Your task to perform on an android device: allow notifications from all sites in the chrome app Image 0: 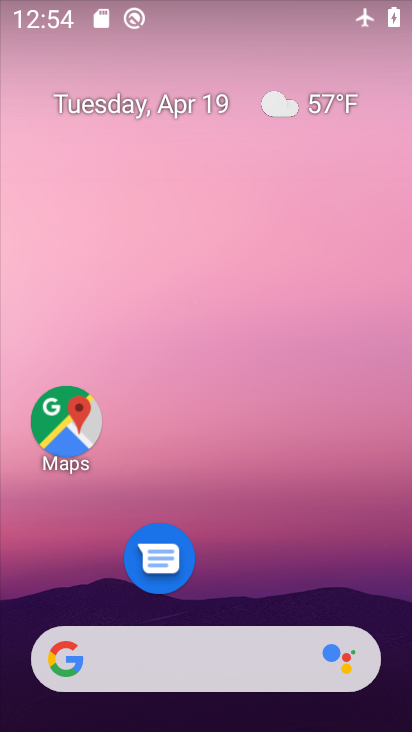
Step 0: drag from (265, 584) to (183, 121)
Your task to perform on an android device: allow notifications from all sites in the chrome app Image 1: 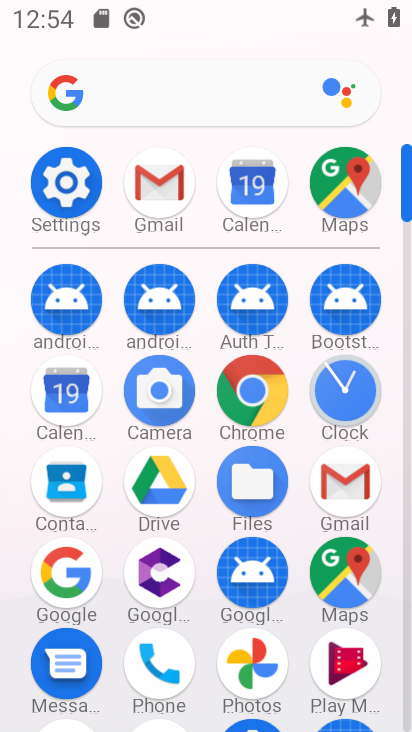
Step 1: click (245, 394)
Your task to perform on an android device: allow notifications from all sites in the chrome app Image 2: 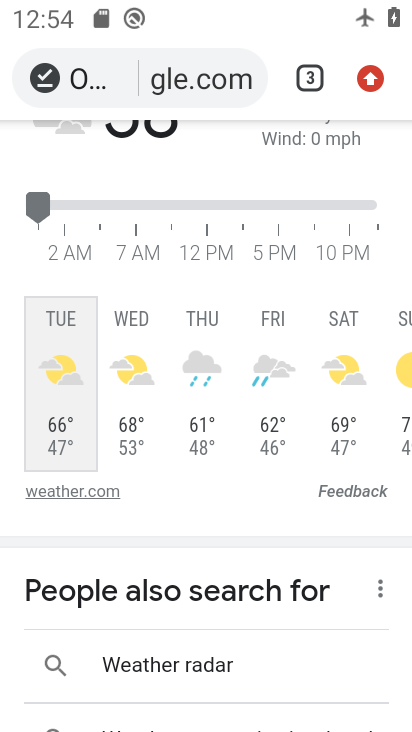
Step 2: click (367, 78)
Your task to perform on an android device: allow notifications from all sites in the chrome app Image 3: 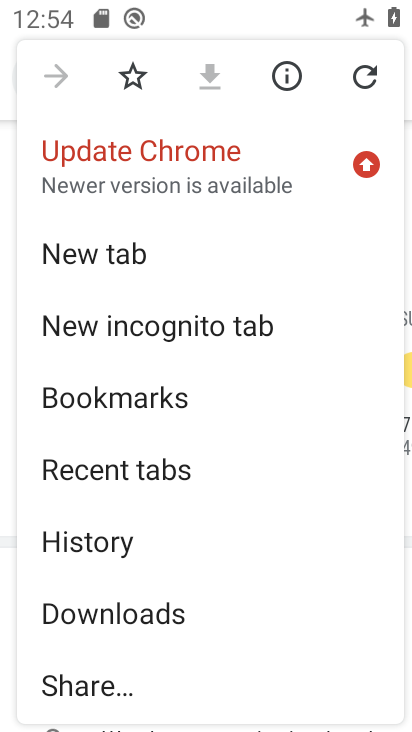
Step 3: drag from (124, 678) to (155, 349)
Your task to perform on an android device: allow notifications from all sites in the chrome app Image 4: 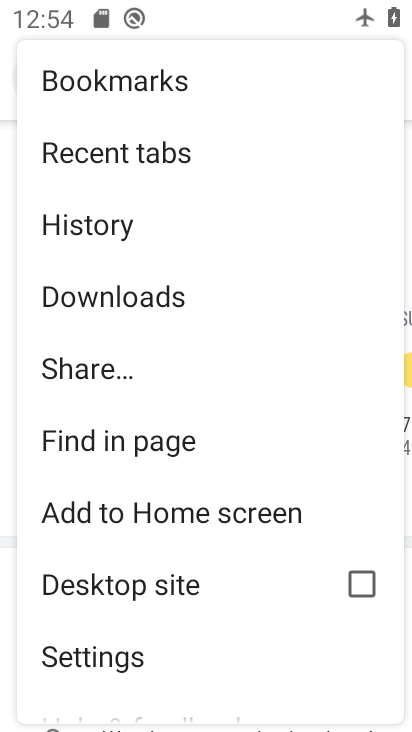
Step 4: drag from (224, 644) to (143, 221)
Your task to perform on an android device: allow notifications from all sites in the chrome app Image 5: 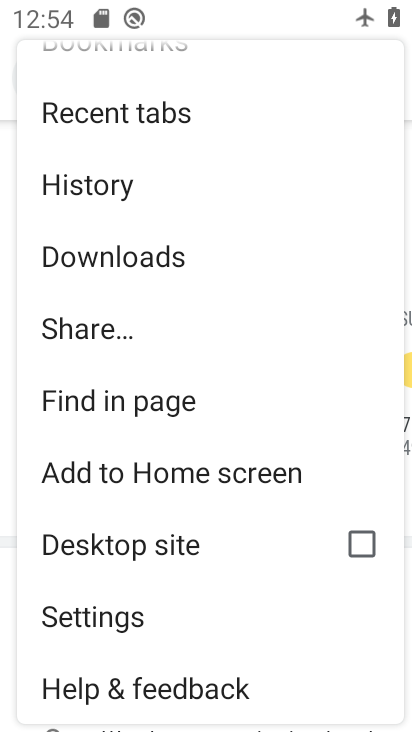
Step 5: click (76, 618)
Your task to perform on an android device: allow notifications from all sites in the chrome app Image 6: 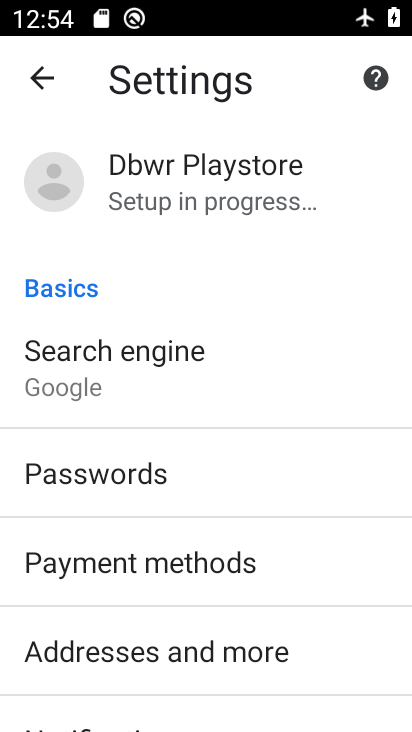
Step 6: drag from (231, 590) to (189, 237)
Your task to perform on an android device: allow notifications from all sites in the chrome app Image 7: 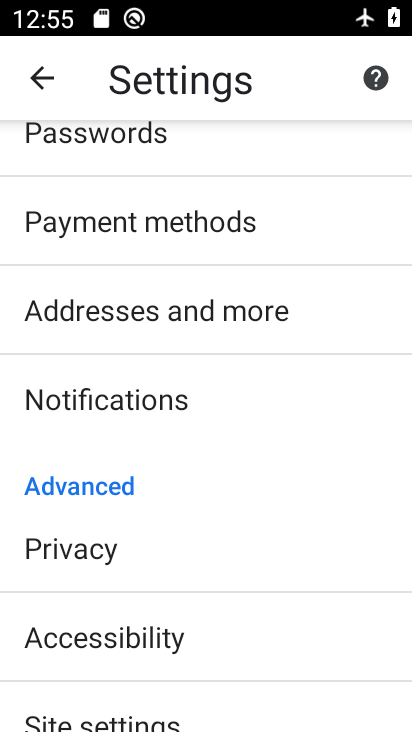
Step 7: click (167, 401)
Your task to perform on an android device: allow notifications from all sites in the chrome app Image 8: 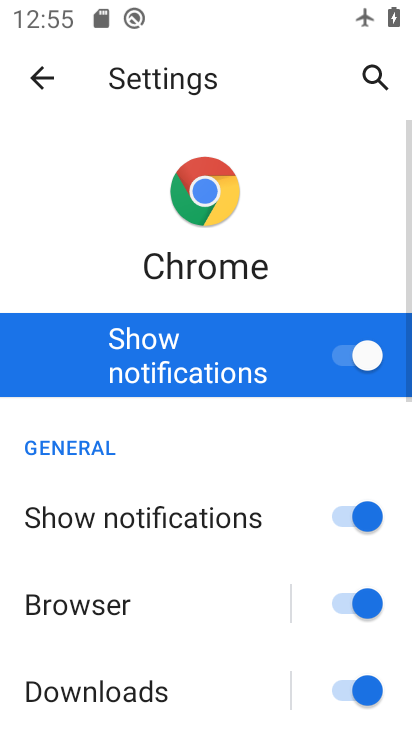
Step 8: task complete